Your task to perform on an android device: refresh tabs in the chrome app Image 0: 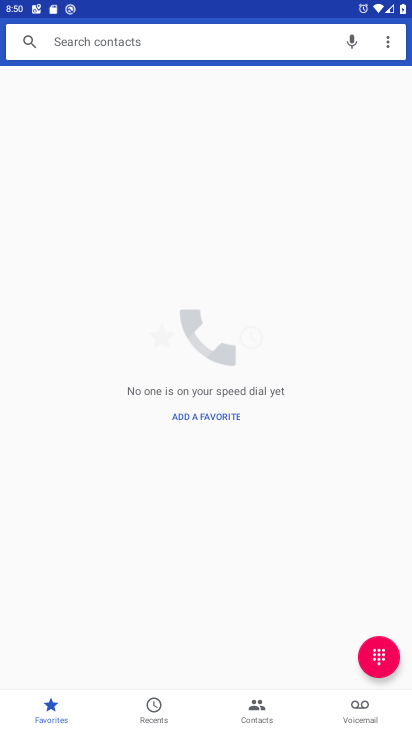
Step 0: press home button
Your task to perform on an android device: refresh tabs in the chrome app Image 1: 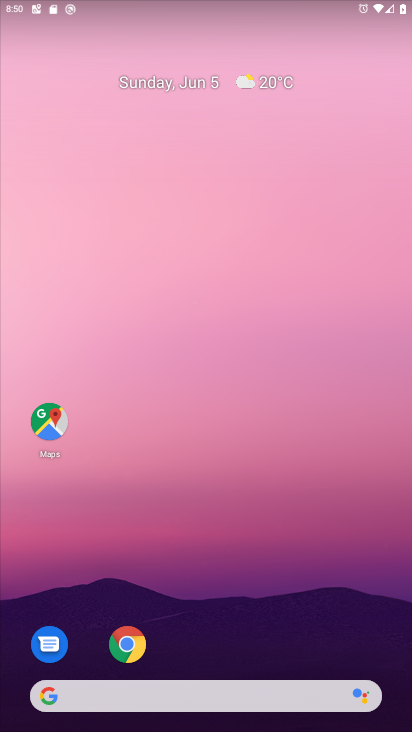
Step 1: drag from (277, 649) to (247, 182)
Your task to perform on an android device: refresh tabs in the chrome app Image 2: 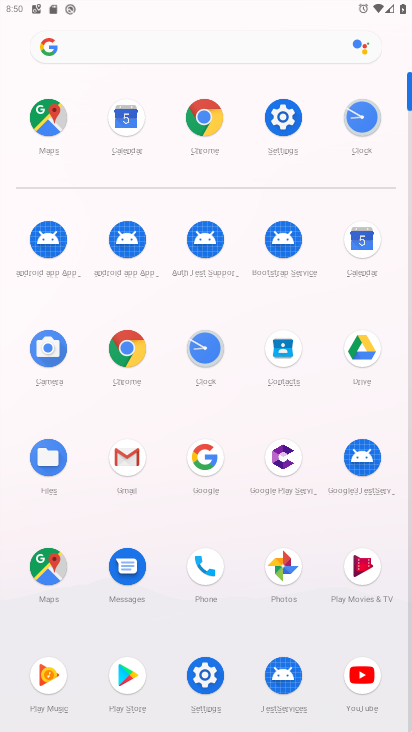
Step 2: click (98, 343)
Your task to perform on an android device: refresh tabs in the chrome app Image 3: 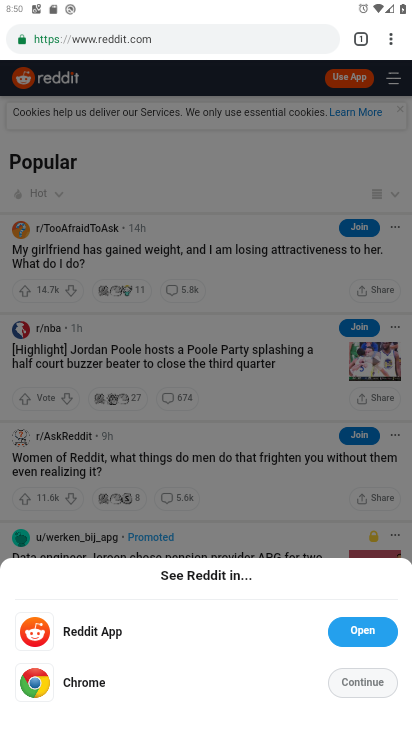
Step 3: click (395, 48)
Your task to perform on an android device: refresh tabs in the chrome app Image 4: 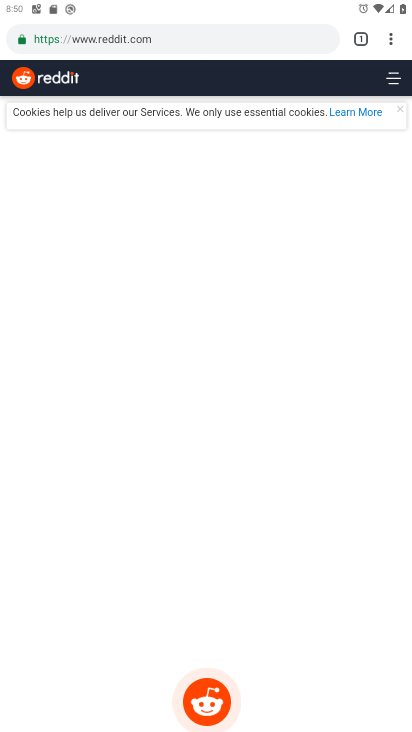
Step 4: task complete